Your task to perform on an android device: Go to sound settings Image 0: 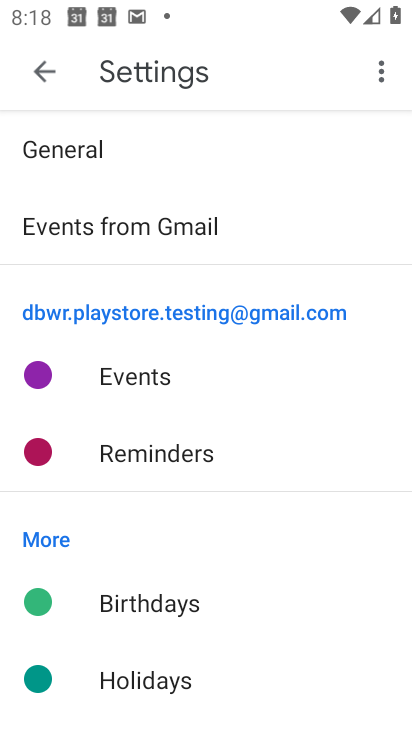
Step 0: press home button
Your task to perform on an android device: Go to sound settings Image 1: 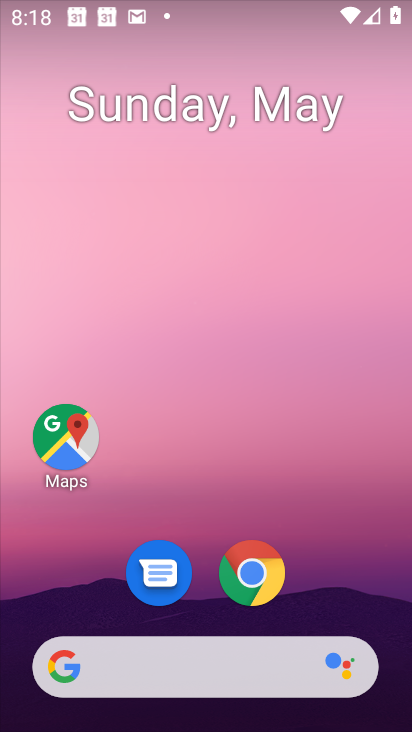
Step 1: drag from (218, 476) to (146, 6)
Your task to perform on an android device: Go to sound settings Image 2: 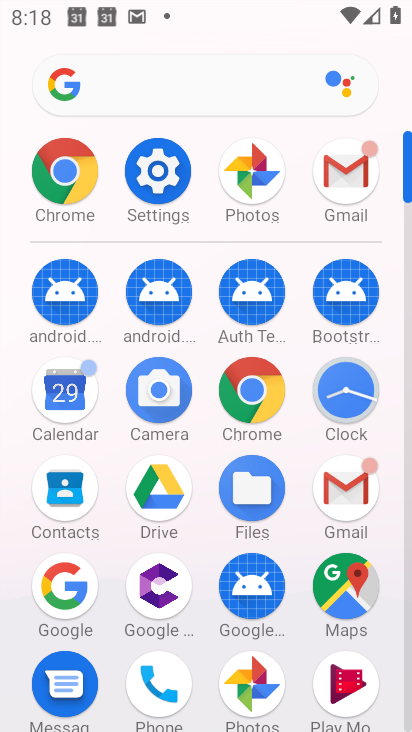
Step 2: click (162, 174)
Your task to perform on an android device: Go to sound settings Image 3: 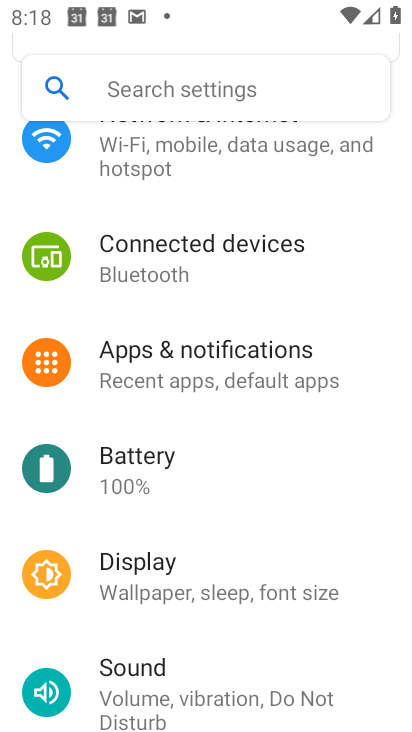
Step 3: drag from (232, 519) to (243, 86)
Your task to perform on an android device: Go to sound settings Image 4: 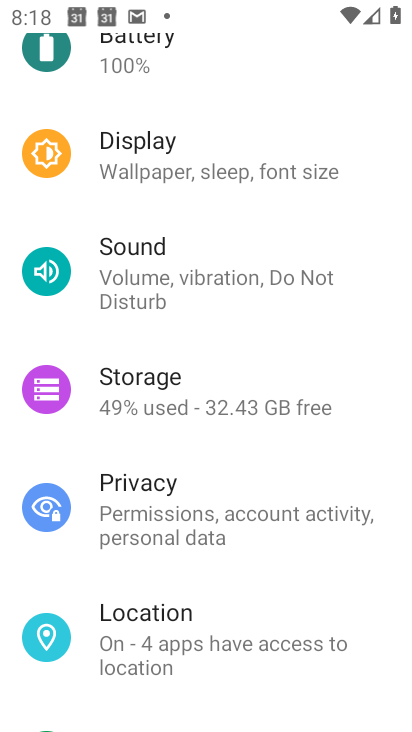
Step 4: click (212, 269)
Your task to perform on an android device: Go to sound settings Image 5: 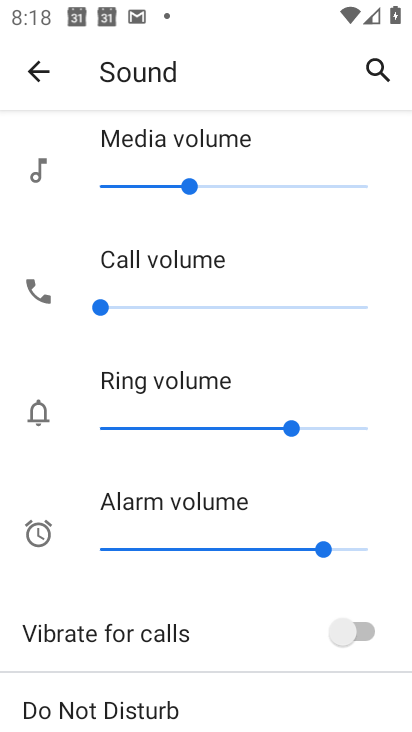
Step 5: task complete